Your task to perform on an android device: Open settings on Google Maps Image 0: 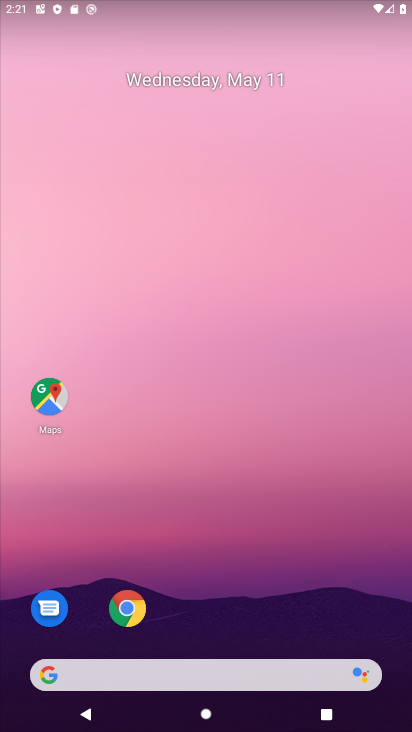
Step 0: click (48, 396)
Your task to perform on an android device: Open settings on Google Maps Image 1: 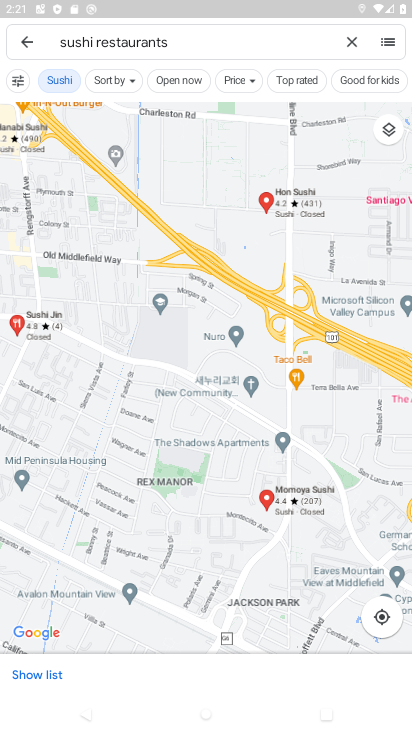
Step 1: click (21, 39)
Your task to perform on an android device: Open settings on Google Maps Image 2: 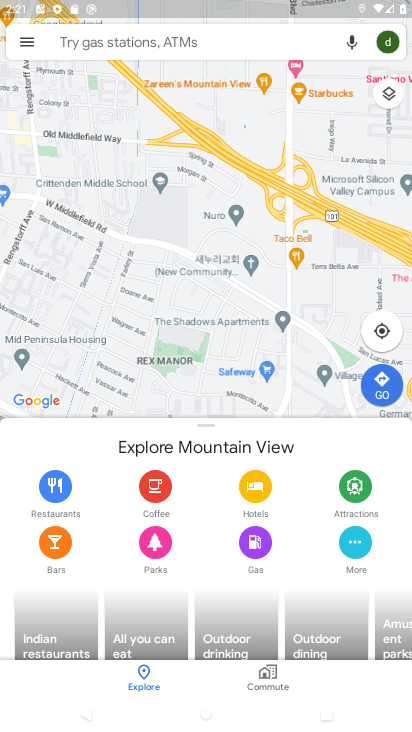
Step 2: click (21, 39)
Your task to perform on an android device: Open settings on Google Maps Image 3: 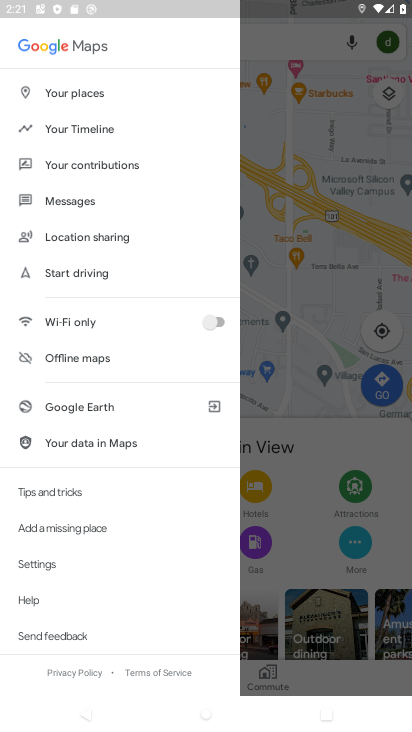
Step 3: click (39, 563)
Your task to perform on an android device: Open settings on Google Maps Image 4: 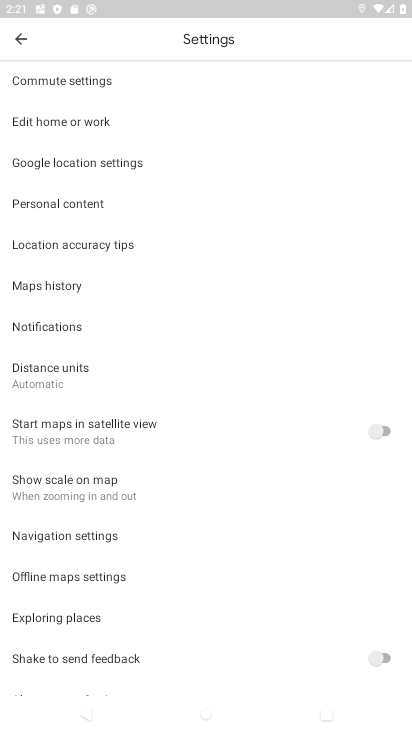
Step 4: task complete